Your task to perform on an android device: Open settings Image 0: 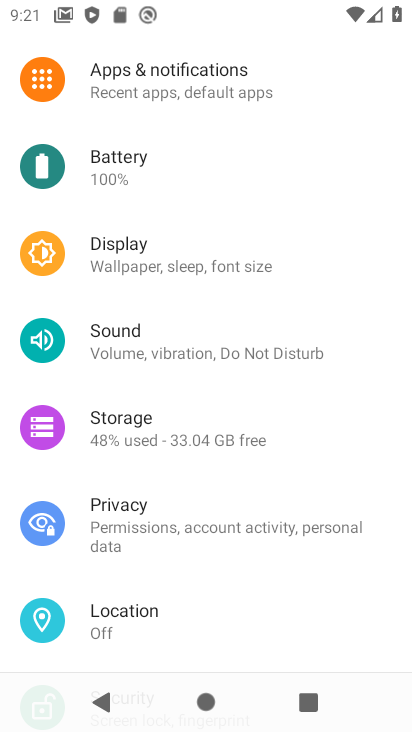
Step 0: task complete